Your task to perform on an android device: delete location history Image 0: 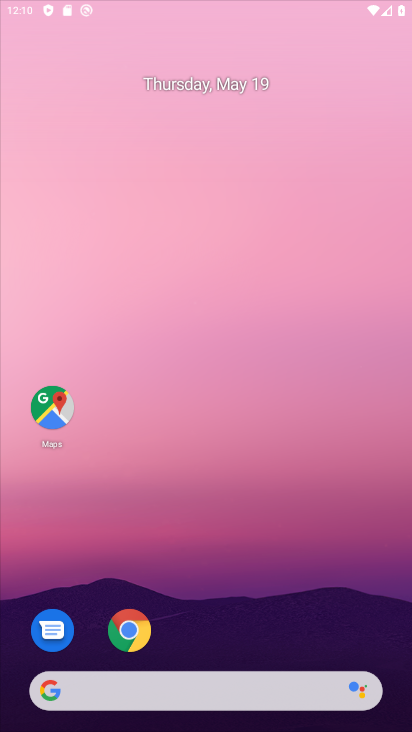
Step 0: click (404, 21)
Your task to perform on an android device: delete location history Image 1: 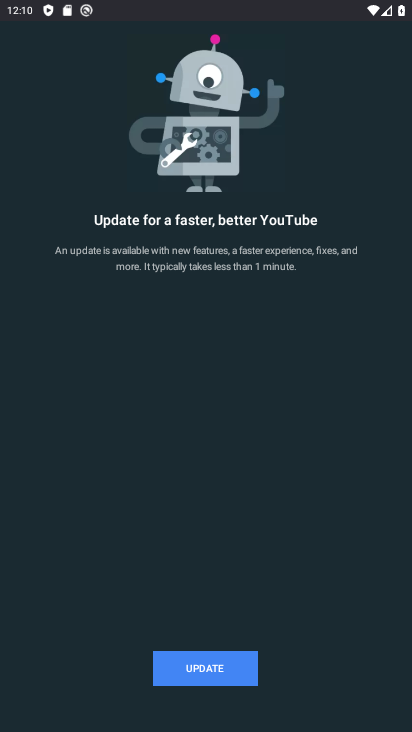
Step 1: press home button
Your task to perform on an android device: delete location history Image 2: 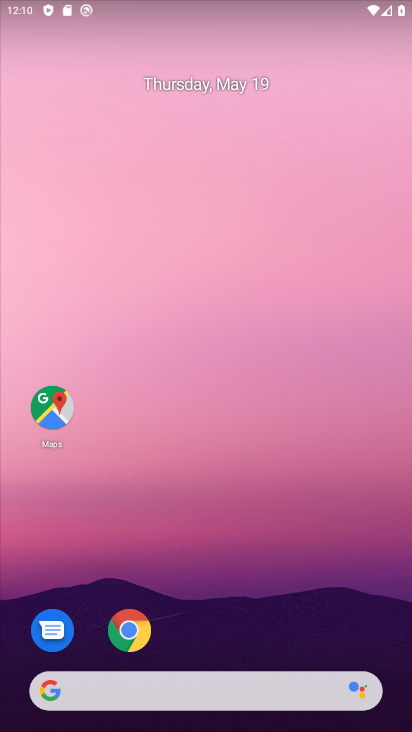
Step 2: drag from (180, 647) to (324, 8)
Your task to perform on an android device: delete location history Image 3: 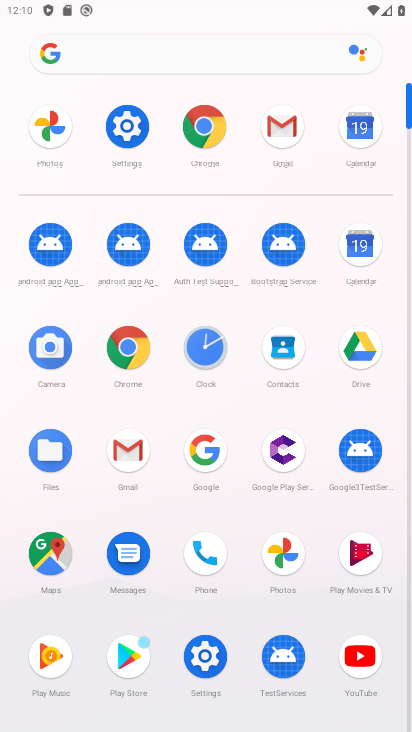
Step 3: click (116, 130)
Your task to perform on an android device: delete location history Image 4: 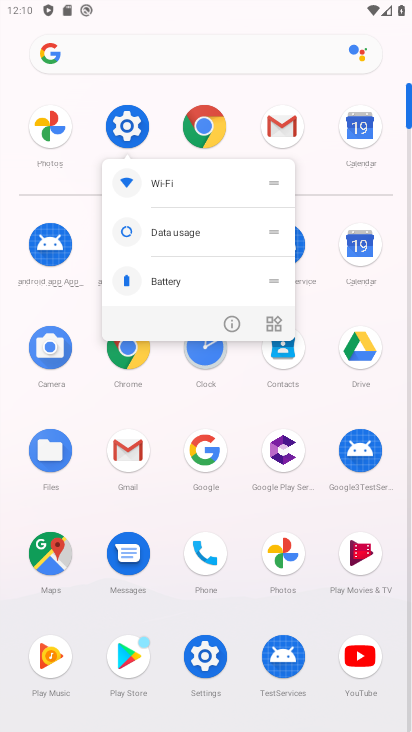
Step 4: click (228, 321)
Your task to perform on an android device: delete location history Image 5: 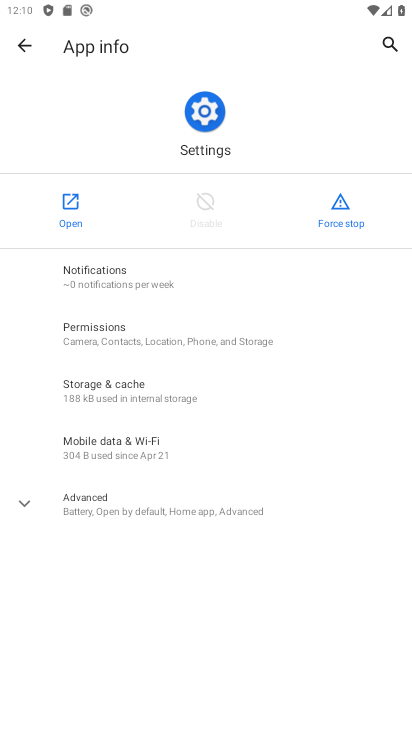
Step 5: click (58, 206)
Your task to perform on an android device: delete location history Image 6: 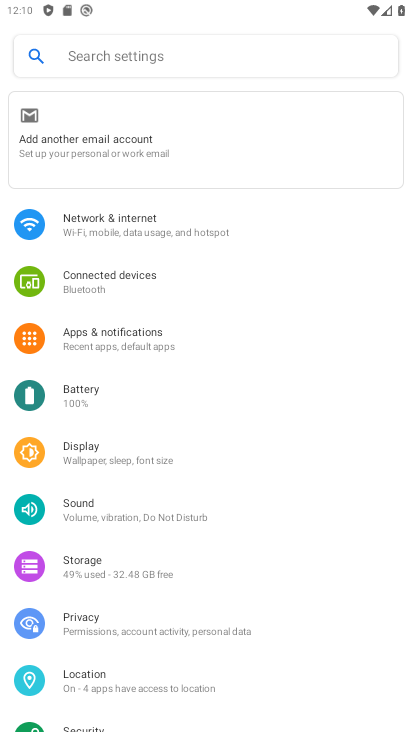
Step 6: drag from (133, 547) to (249, 116)
Your task to perform on an android device: delete location history Image 7: 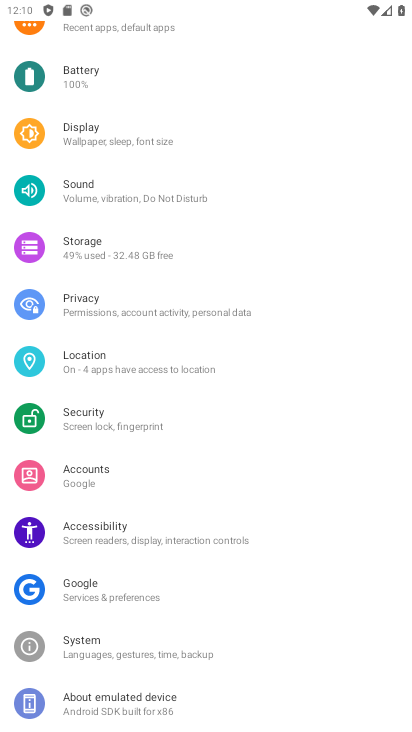
Step 7: click (107, 366)
Your task to perform on an android device: delete location history Image 8: 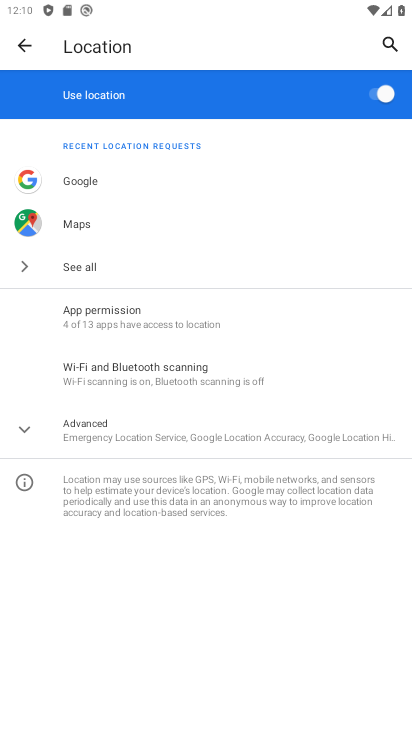
Step 8: click (142, 431)
Your task to perform on an android device: delete location history Image 9: 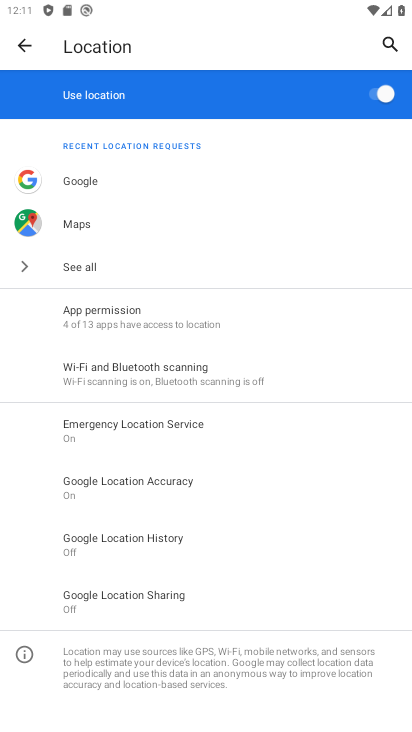
Step 9: click (173, 544)
Your task to perform on an android device: delete location history Image 10: 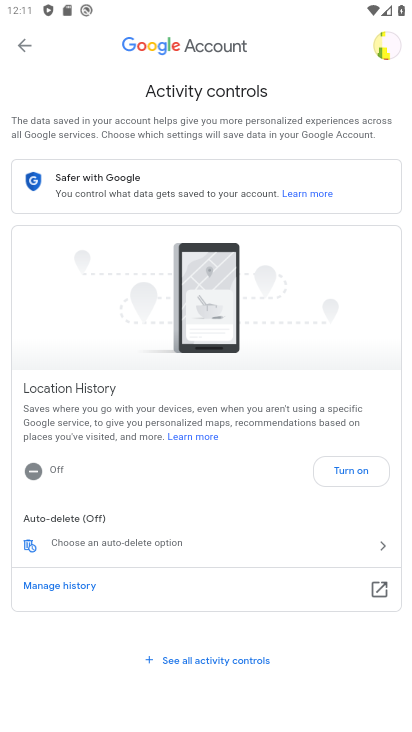
Step 10: click (25, 545)
Your task to perform on an android device: delete location history Image 11: 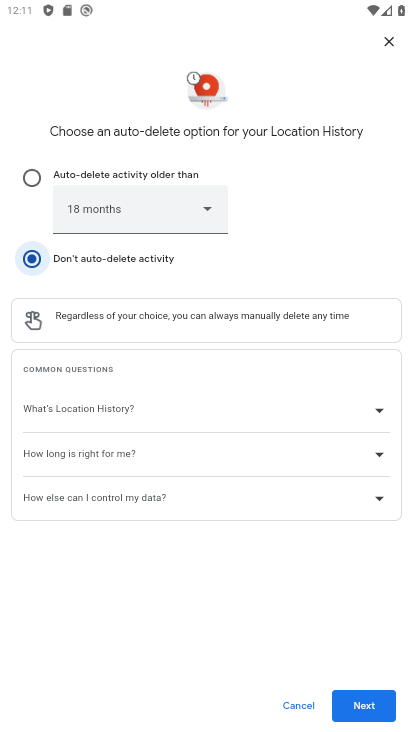
Step 11: click (375, 700)
Your task to perform on an android device: delete location history Image 12: 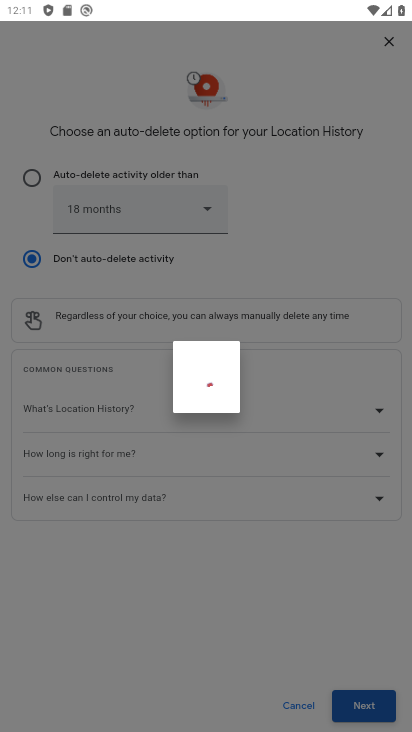
Step 12: click (360, 695)
Your task to perform on an android device: delete location history Image 13: 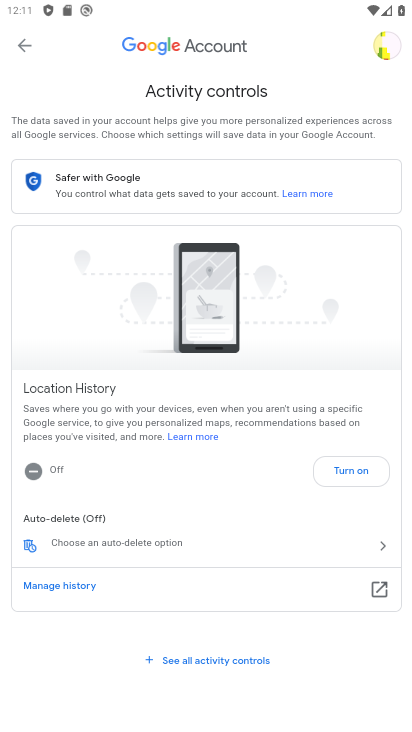
Step 13: click (353, 691)
Your task to perform on an android device: delete location history Image 14: 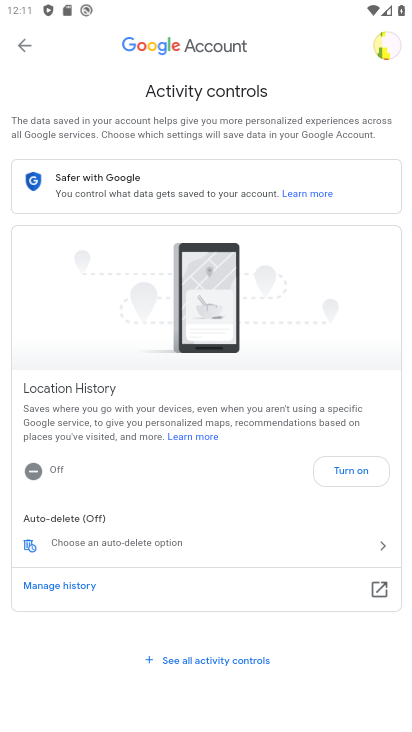
Step 14: task complete